Your task to perform on an android device: Turn off the flashlight Image 0: 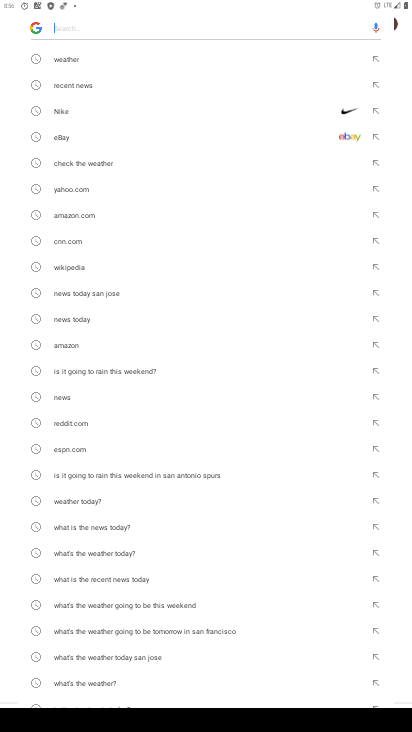
Step 0: press home button
Your task to perform on an android device: Turn off the flashlight Image 1: 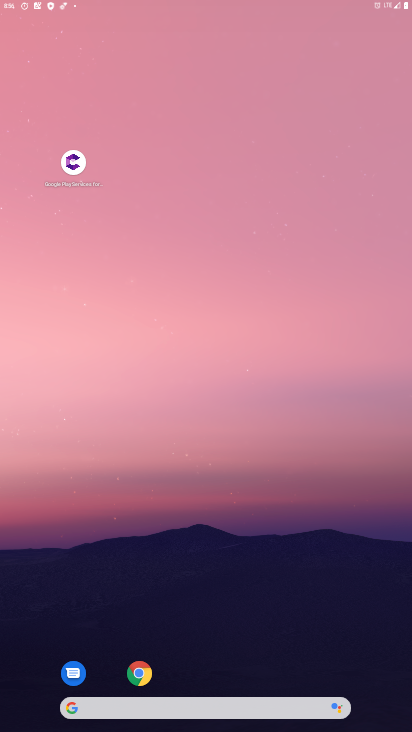
Step 1: drag from (195, 671) to (166, 63)
Your task to perform on an android device: Turn off the flashlight Image 2: 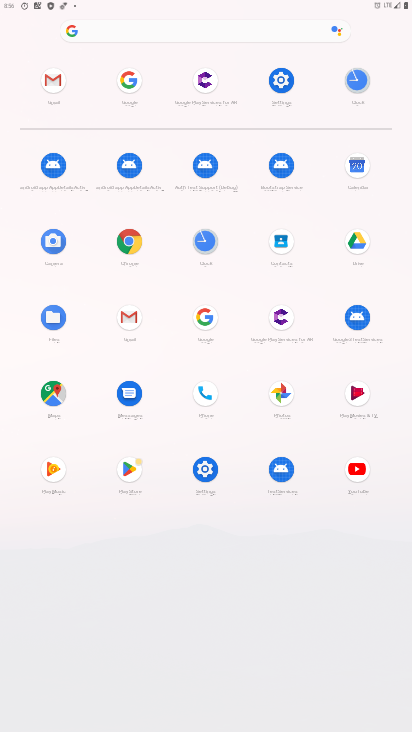
Step 2: click (281, 78)
Your task to perform on an android device: Turn off the flashlight Image 3: 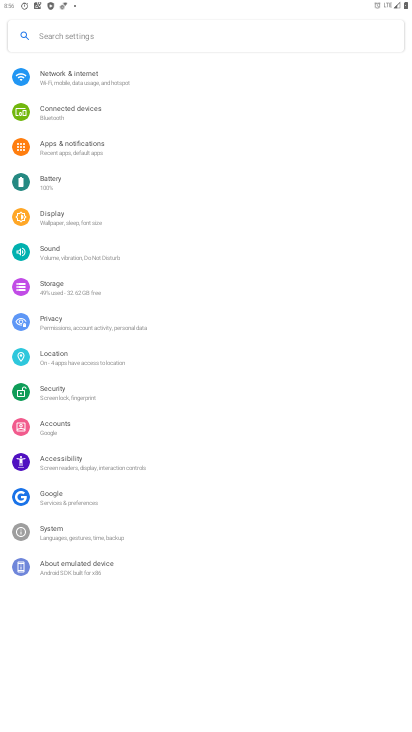
Step 3: click (93, 37)
Your task to perform on an android device: Turn off the flashlight Image 4: 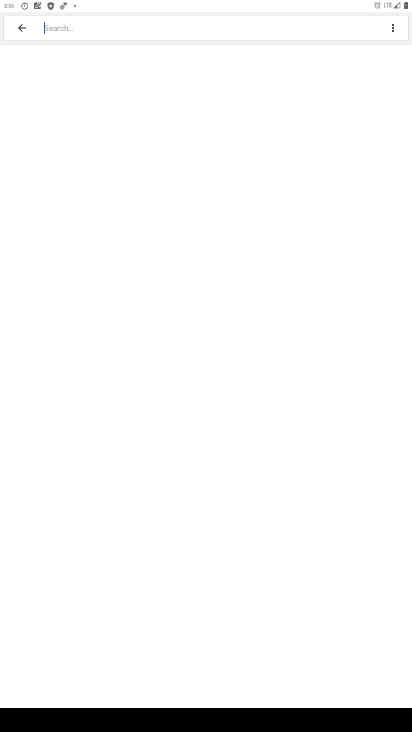
Step 4: type "flashlight"
Your task to perform on an android device: Turn off the flashlight Image 5: 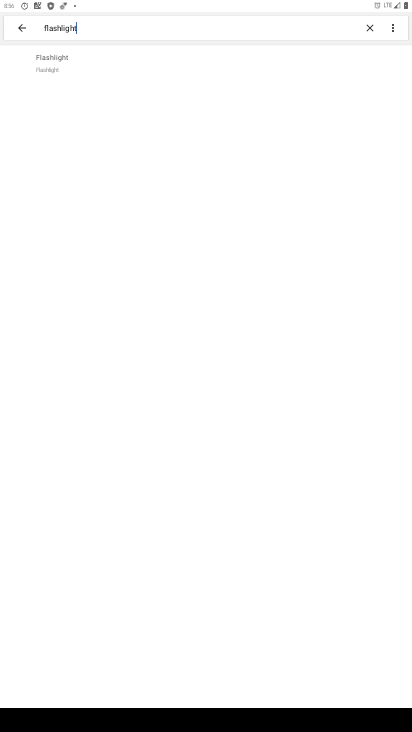
Step 5: task complete